Your task to perform on an android device: allow cookies in the chrome app Image 0: 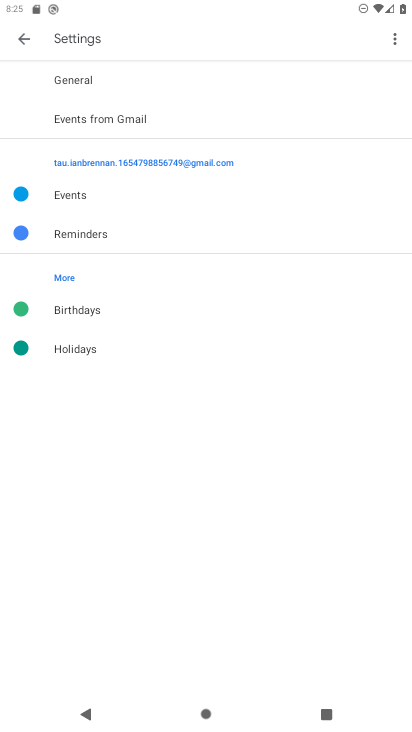
Step 0: press home button
Your task to perform on an android device: allow cookies in the chrome app Image 1: 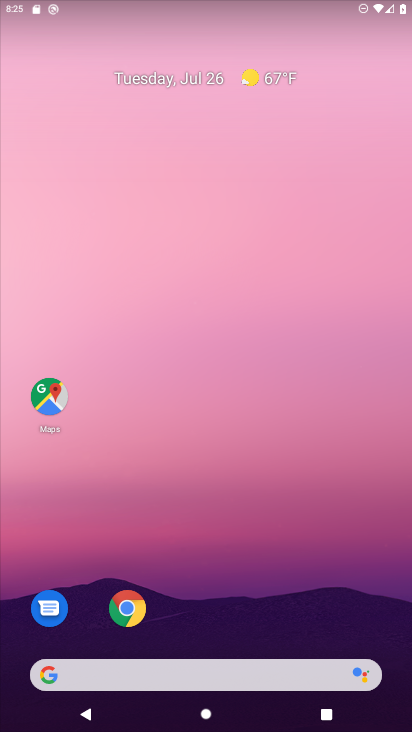
Step 1: click (133, 607)
Your task to perform on an android device: allow cookies in the chrome app Image 2: 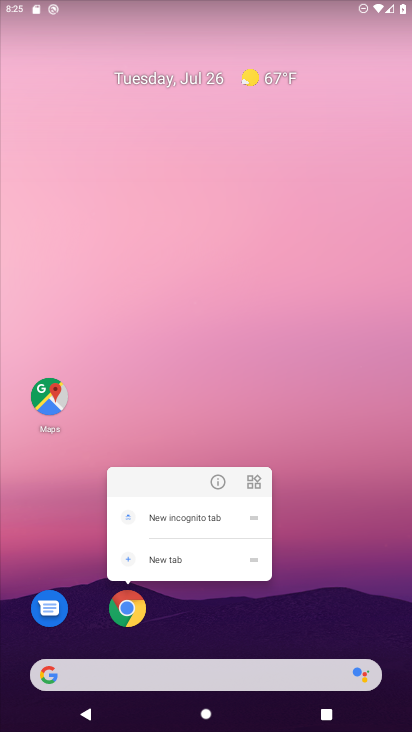
Step 2: click (131, 620)
Your task to perform on an android device: allow cookies in the chrome app Image 3: 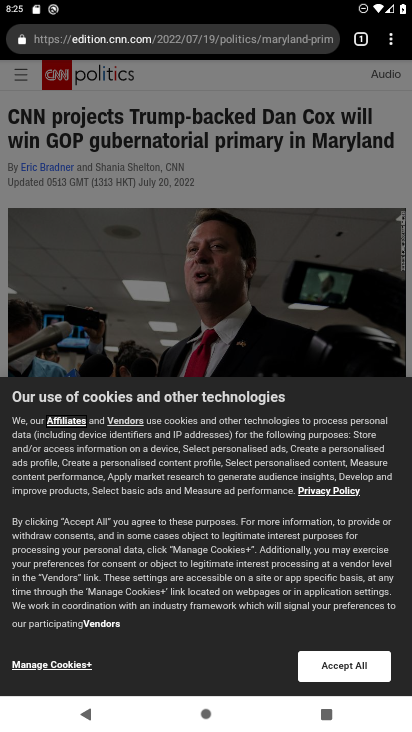
Step 3: click (392, 38)
Your task to perform on an android device: allow cookies in the chrome app Image 4: 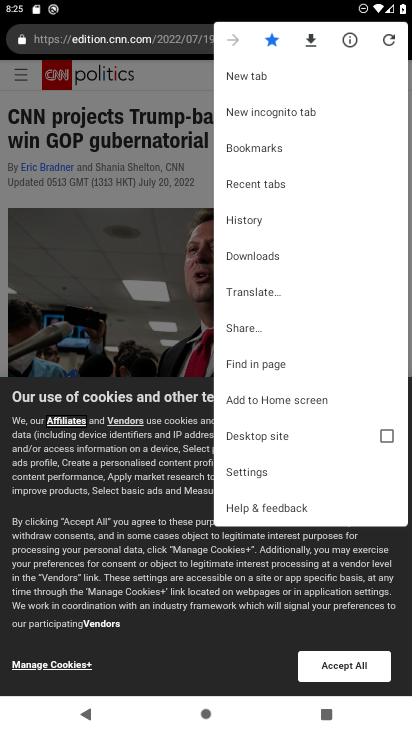
Step 4: click (271, 468)
Your task to perform on an android device: allow cookies in the chrome app Image 5: 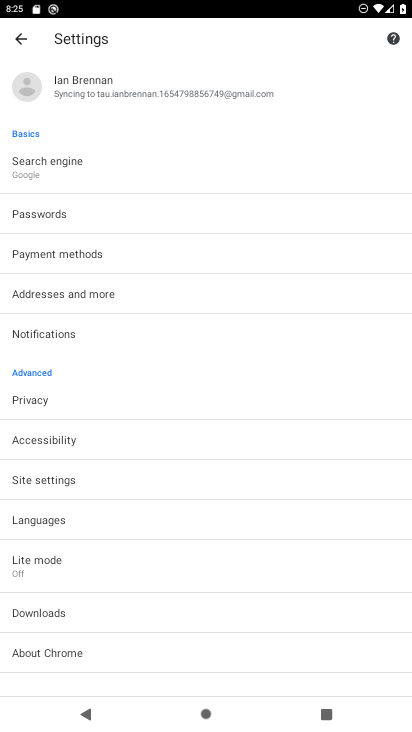
Step 5: click (66, 477)
Your task to perform on an android device: allow cookies in the chrome app Image 6: 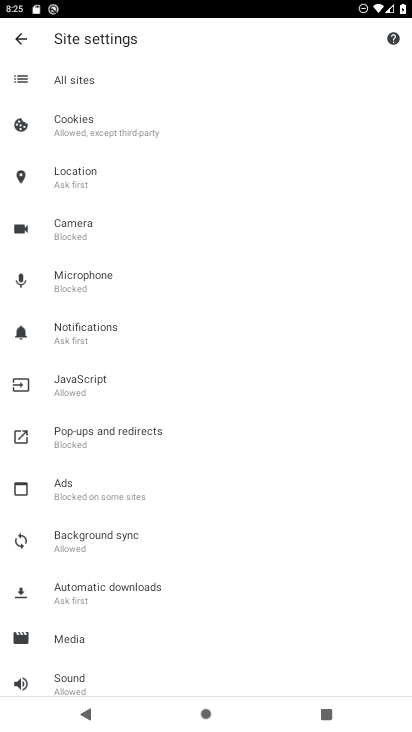
Step 6: click (115, 129)
Your task to perform on an android device: allow cookies in the chrome app Image 7: 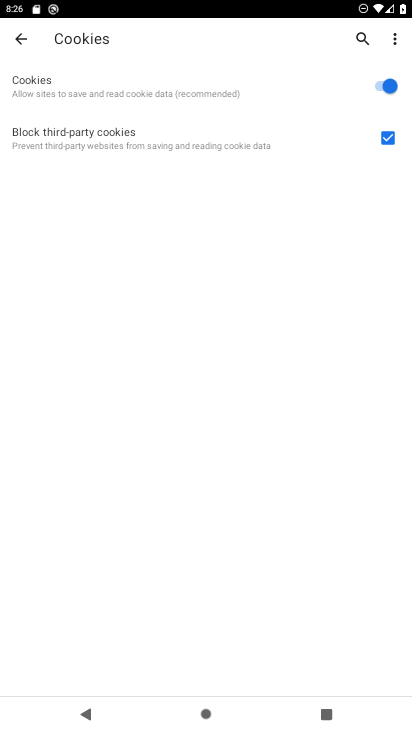
Step 7: task complete